Your task to perform on an android device: Search for seafood restaurants on Google Maps Image 0: 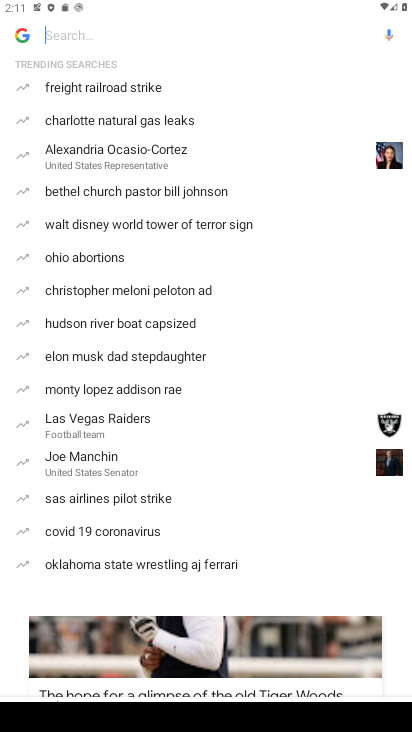
Step 0: press home button
Your task to perform on an android device: Search for seafood restaurants on Google Maps Image 1: 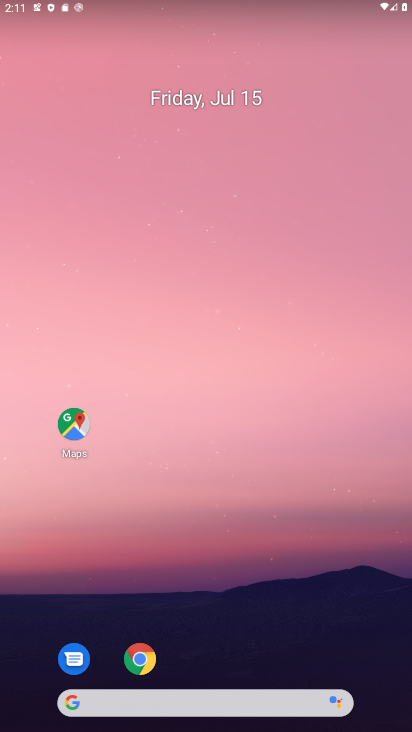
Step 1: click (89, 427)
Your task to perform on an android device: Search for seafood restaurants on Google Maps Image 2: 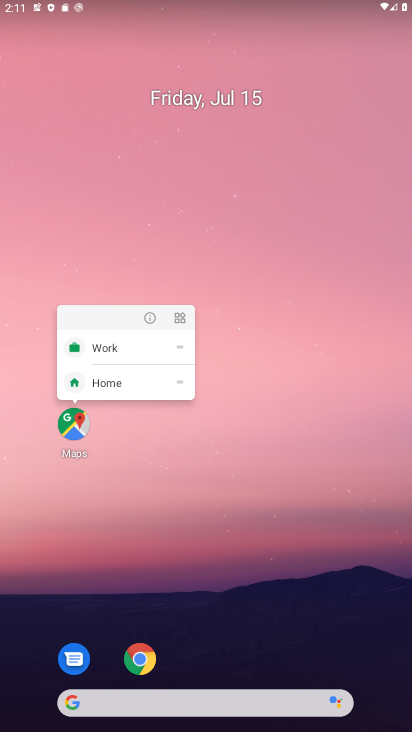
Step 2: click (59, 418)
Your task to perform on an android device: Search for seafood restaurants on Google Maps Image 3: 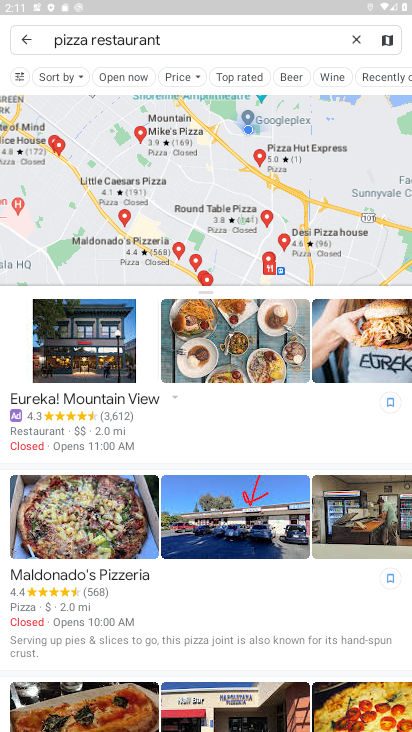
Step 3: click (357, 33)
Your task to perform on an android device: Search for seafood restaurants on Google Maps Image 4: 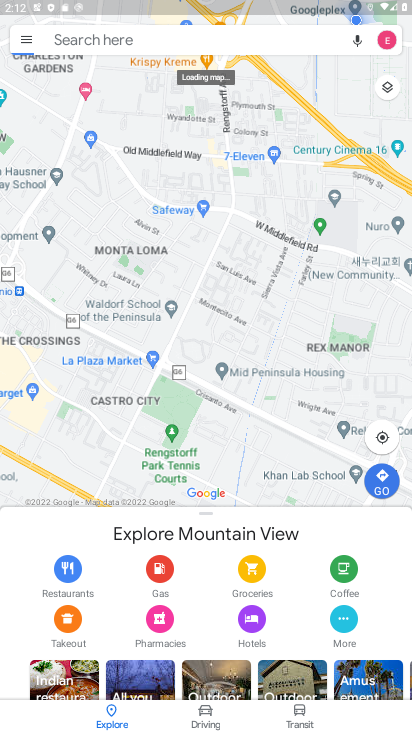
Step 4: click (114, 37)
Your task to perform on an android device: Search for seafood restaurants on Google Maps Image 5: 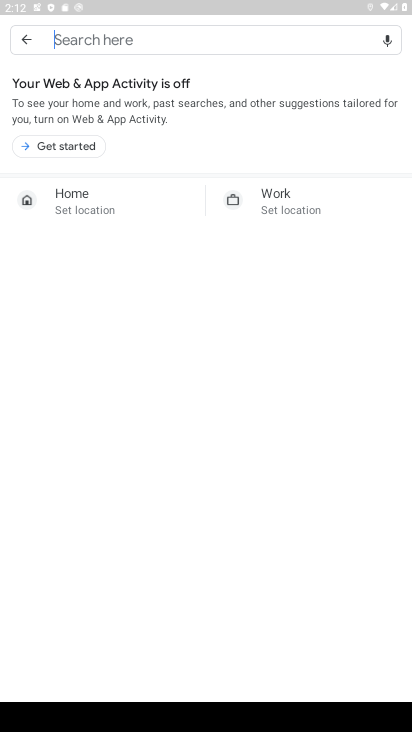
Step 5: click (239, 36)
Your task to perform on an android device: Search for seafood restaurants on Google Maps Image 6: 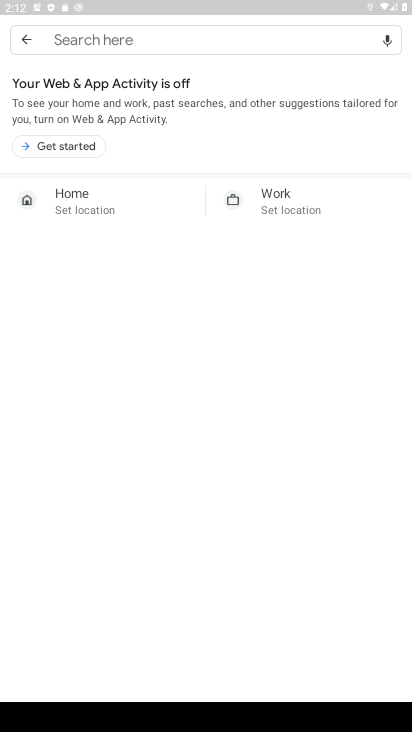
Step 6: type " seafood restaurants  "
Your task to perform on an android device: Search for seafood restaurants on Google Maps Image 7: 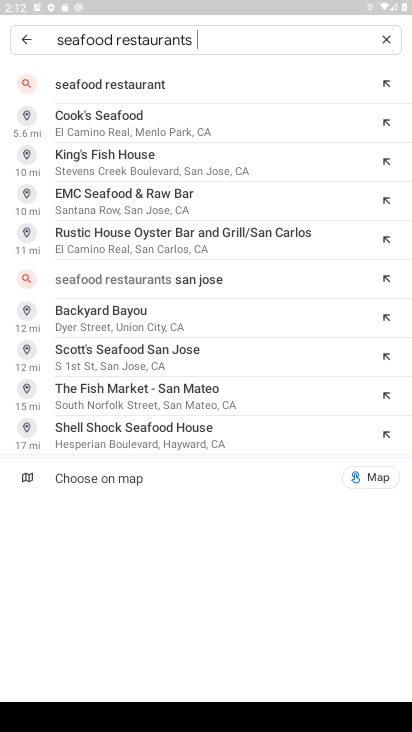
Step 7: click (141, 88)
Your task to perform on an android device: Search for seafood restaurants on Google Maps Image 8: 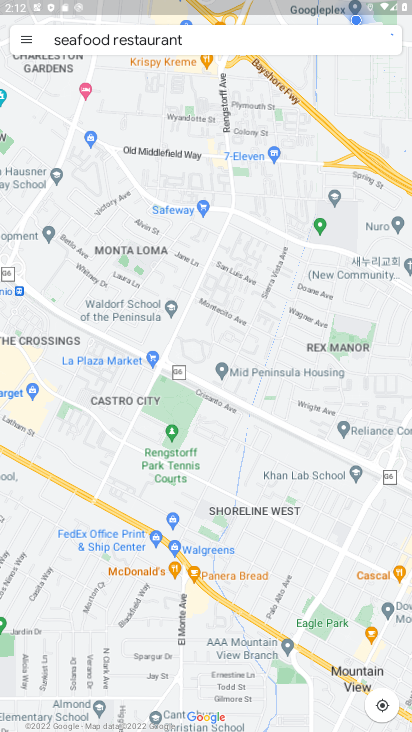
Step 8: task complete